Your task to perform on an android device: check android version Image 0: 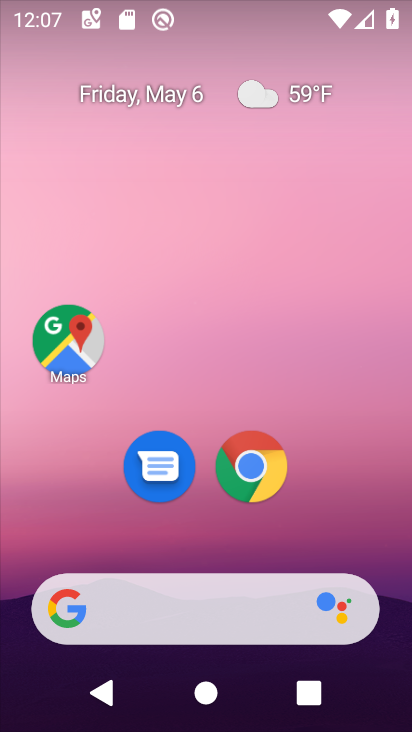
Step 0: drag from (376, 547) to (323, 101)
Your task to perform on an android device: check android version Image 1: 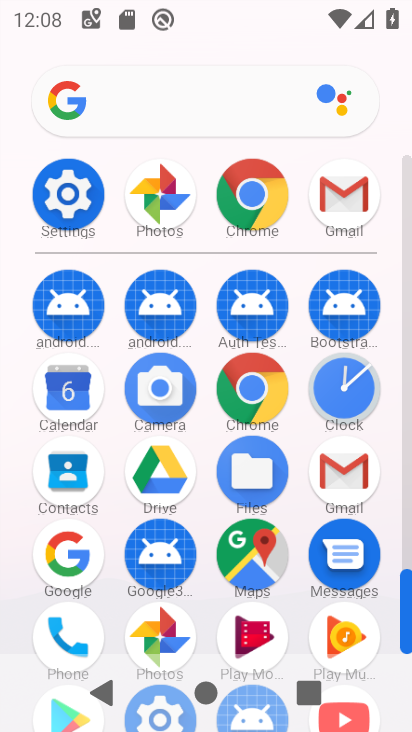
Step 1: click (72, 184)
Your task to perform on an android device: check android version Image 2: 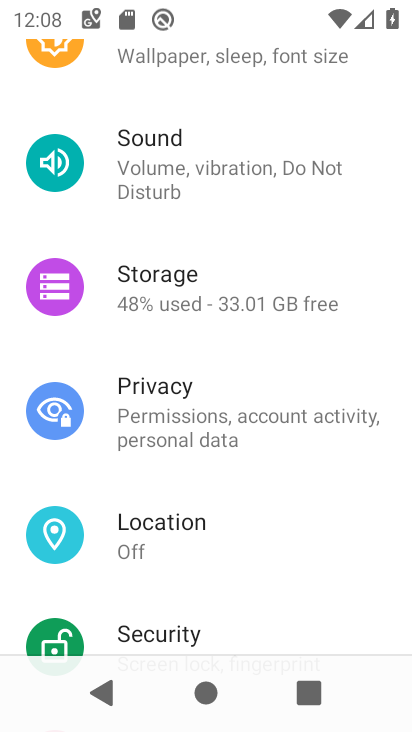
Step 2: drag from (325, 579) to (305, 188)
Your task to perform on an android device: check android version Image 3: 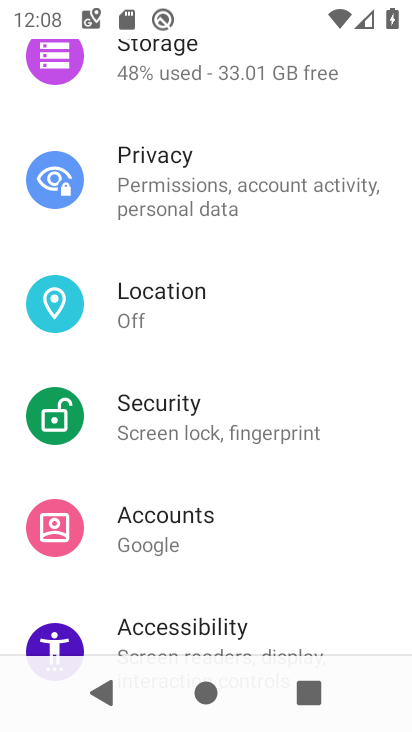
Step 3: drag from (347, 569) to (277, 151)
Your task to perform on an android device: check android version Image 4: 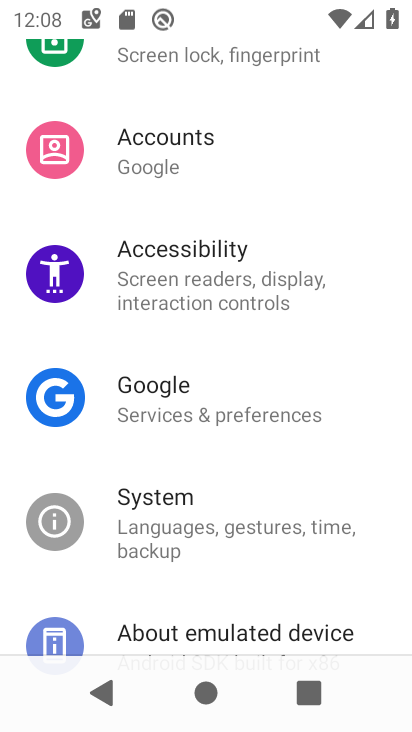
Step 4: drag from (297, 581) to (268, 277)
Your task to perform on an android device: check android version Image 5: 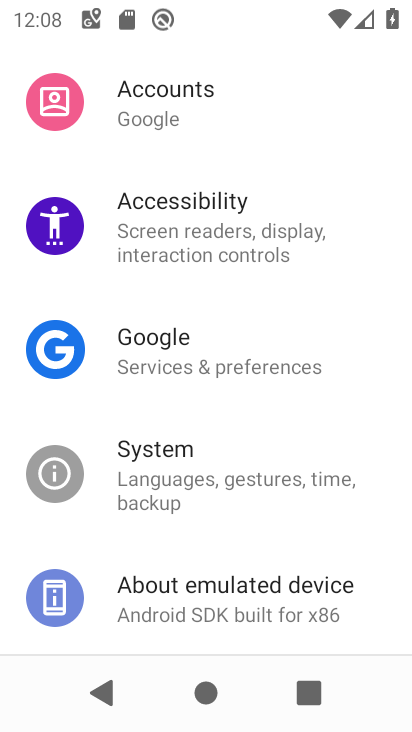
Step 5: click (286, 584)
Your task to perform on an android device: check android version Image 6: 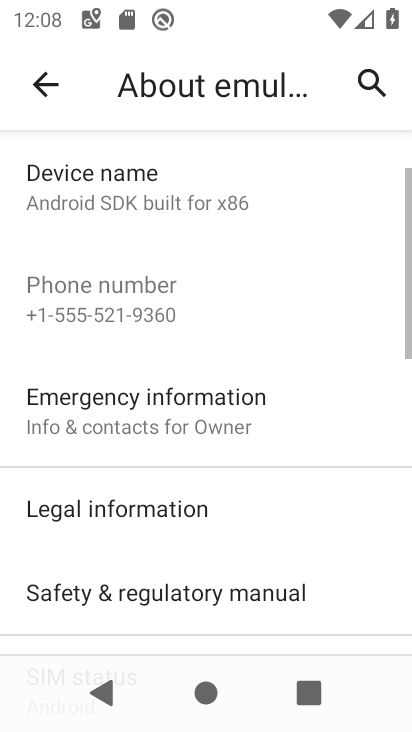
Step 6: drag from (325, 544) to (212, 177)
Your task to perform on an android device: check android version Image 7: 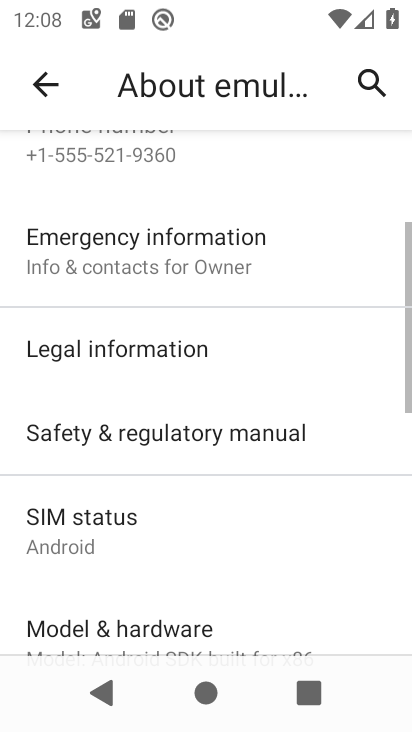
Step 7: drag from (284, 554) to (219, 147)
Your task to perform on an android device: check android version Image 8: 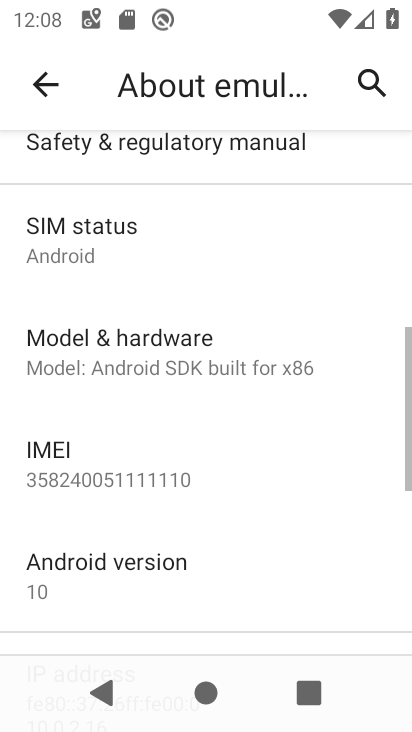
Step 8: drag from (209, 590) to (193, 437)
Your task to perform on an android device: check android version Image 9: 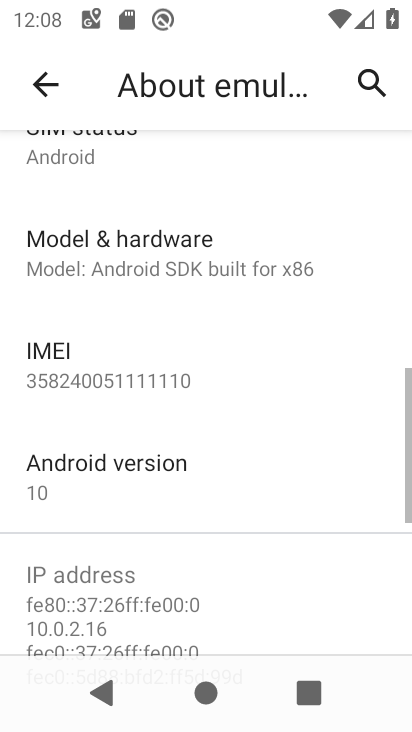
Step 9: click (196, 497)
Your task to perform on an android device: check android version Image 10: 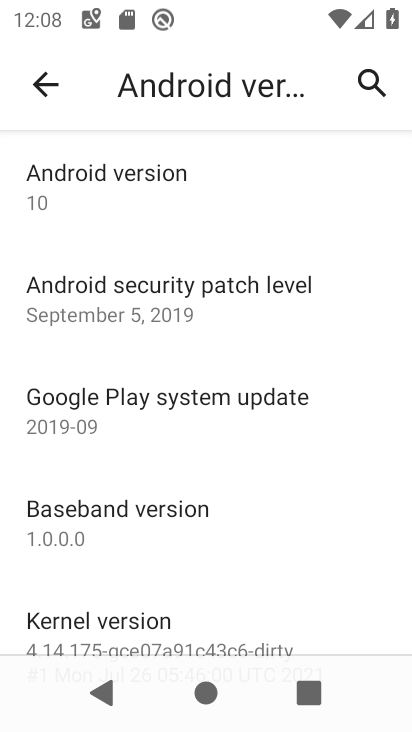
Step 10: task complete